Your task to perform on an android device: star an email in the gmail app Image 0: 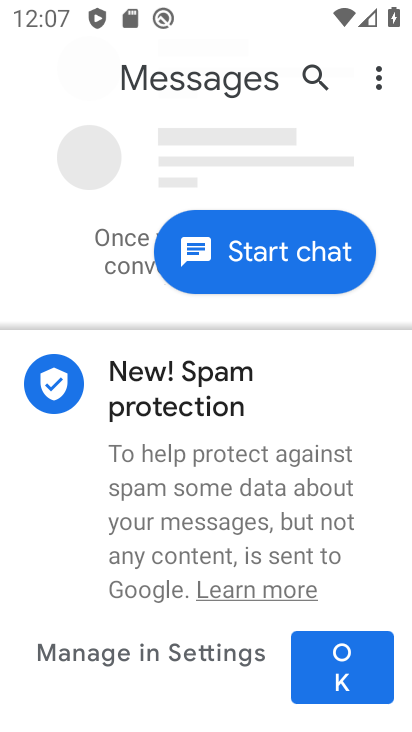
Step 0: press back button
Your task to perform on an android device: star an email in the gmail app Image 1: 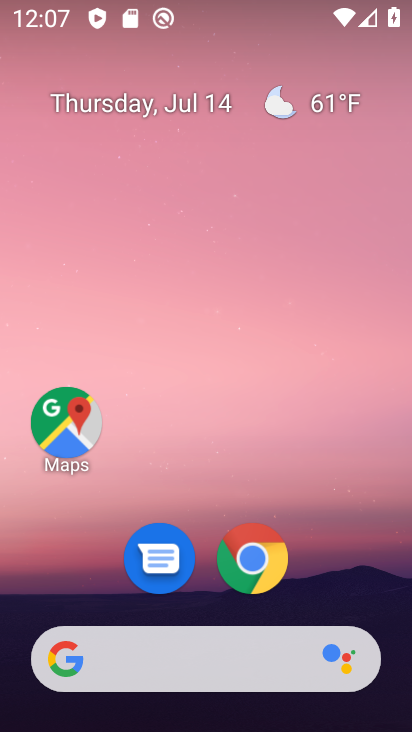
Step 1: drag from (183, 599) to (246, 28)
Your task to perform on an android device: star an email in the gmail app Image 2: 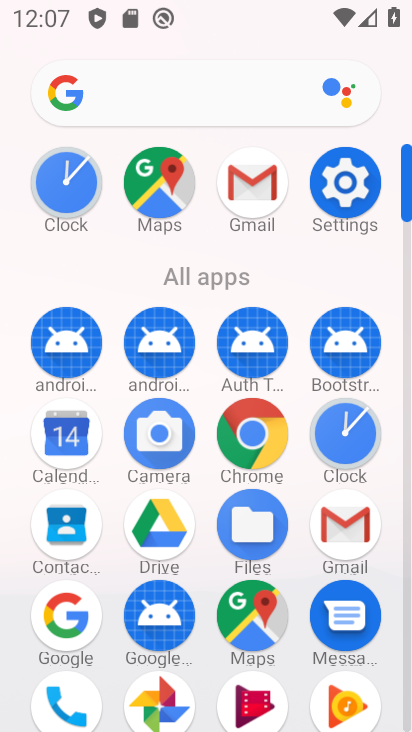
Step 2: click (215, 171)
Your task to perform on an android device: star an email in the gmail app Image 3: 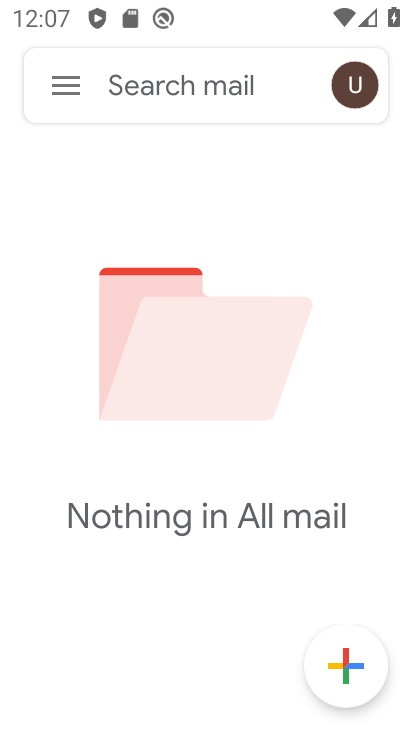
Step 3: task complete